Your task to perform on an android device: turn vacation reply on in the gmail app Image 0: 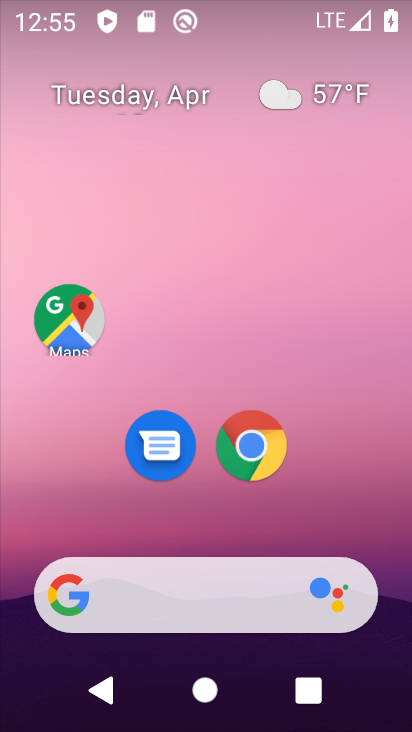
Step 0: drag from (333, 484) to (311, 88)
Your task to perform on an android device: turn vacation reply on in the gmail app Image 1: 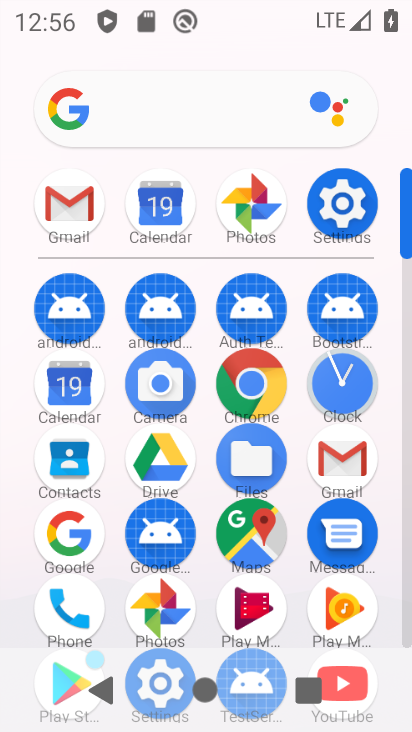
Step 1: click (64, 206)
Your task to perform on an android device: turn vacation reply on in the gmail app Image 2: 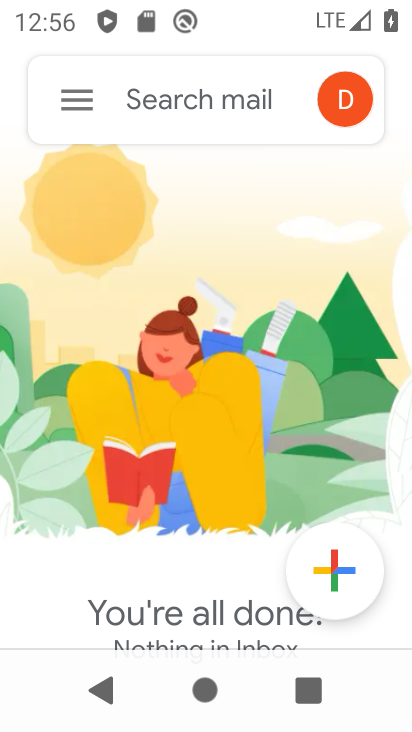
Step 2: click (73, 98)
Your task to perform on an android device: turn vacation reply on in the gmail app Image 3: 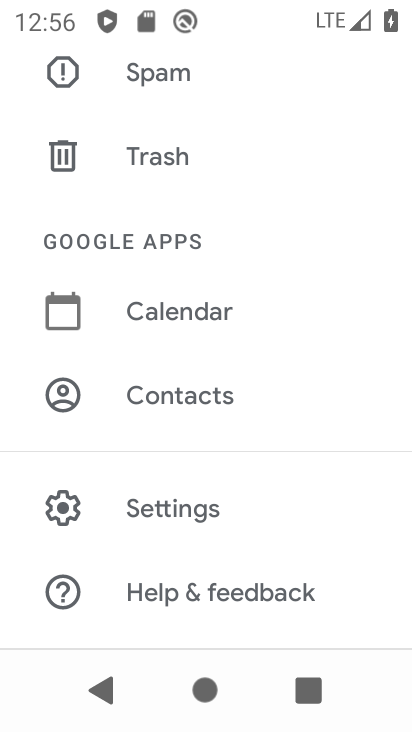
Step 3: click (144, 498)
Your task to perform on an android device: turn vacation reply on in the gmail app Image 4: 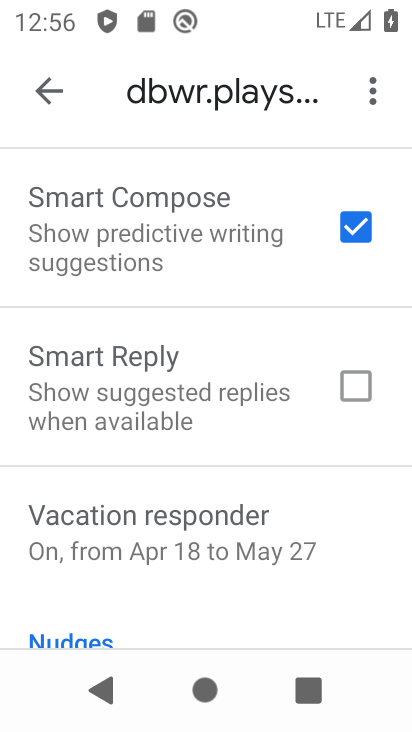
Step 4: drag from (243, 504) to (269, 200)
Your task to perform on an android device: turn vacation reply on in the gmail app Image 5: 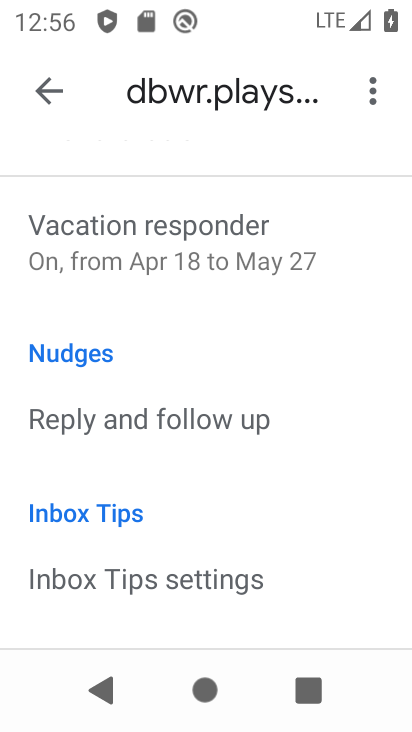
Step 5: click (254, 252)
Your task to perform on an android device: turn vacation reply on in the gmail app Image 6: 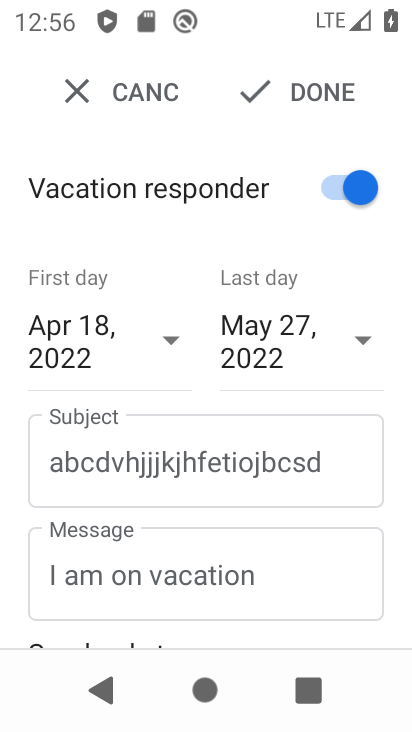
Step 6: task complete